Your task to perform on an android device: read, delete, or share a saved page in the chrome app Image 0: 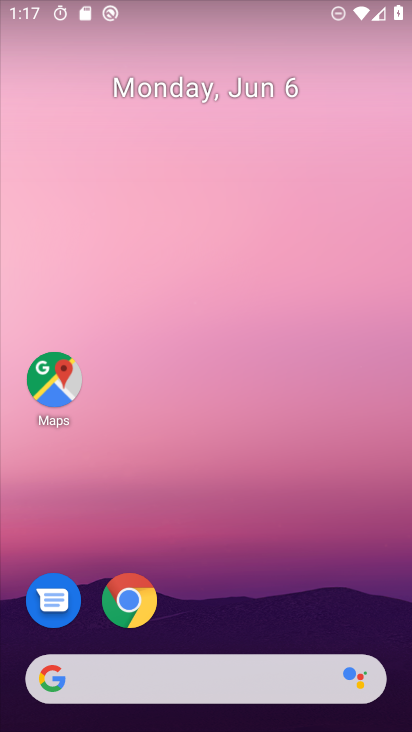
Step 0: click (141, 611)
Your task to perform on an android device: read, delete, or share a saved page in the chrome app Image 1: 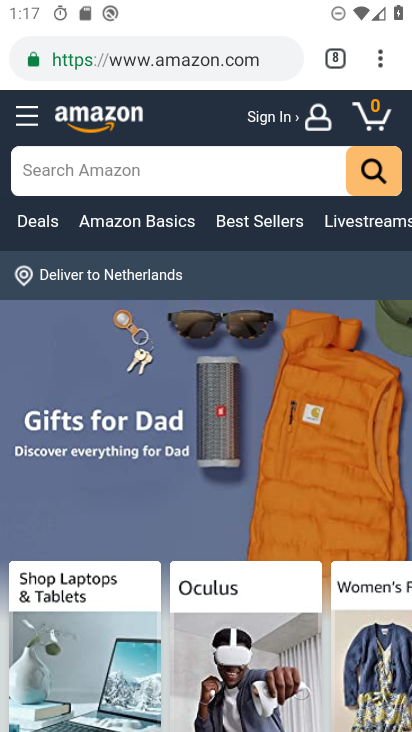
Step 1: drag from (376, 59) to (187, 363)
Your task to perform on an android device: read, delete, or share a saved page in the chrome app Image 2: 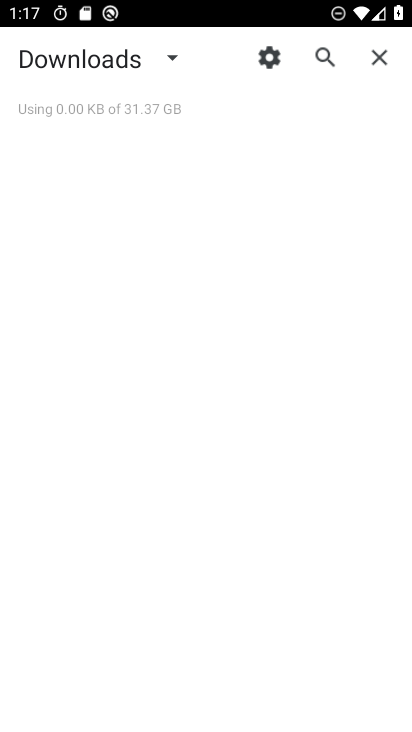
Step 2: click (164, 53)
Your task to perform on an android device: read, delete, or share a saved page in the chrome app Image 3: 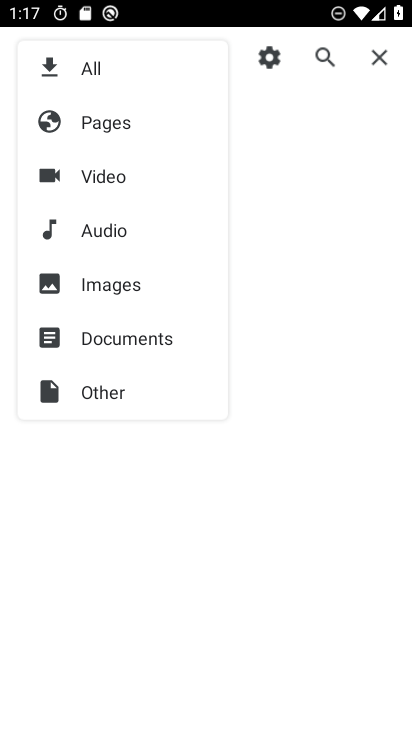
Step 3: click (96, 127)
Your task to perform on an android device: read, delete, or share a saved page in the chrome app Image 4: 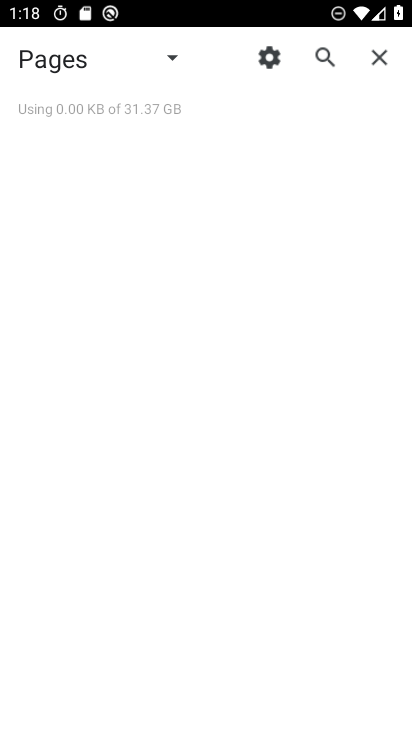
Step 4: task complete